Your task to perform on an android device: Go to network settings Image 0: 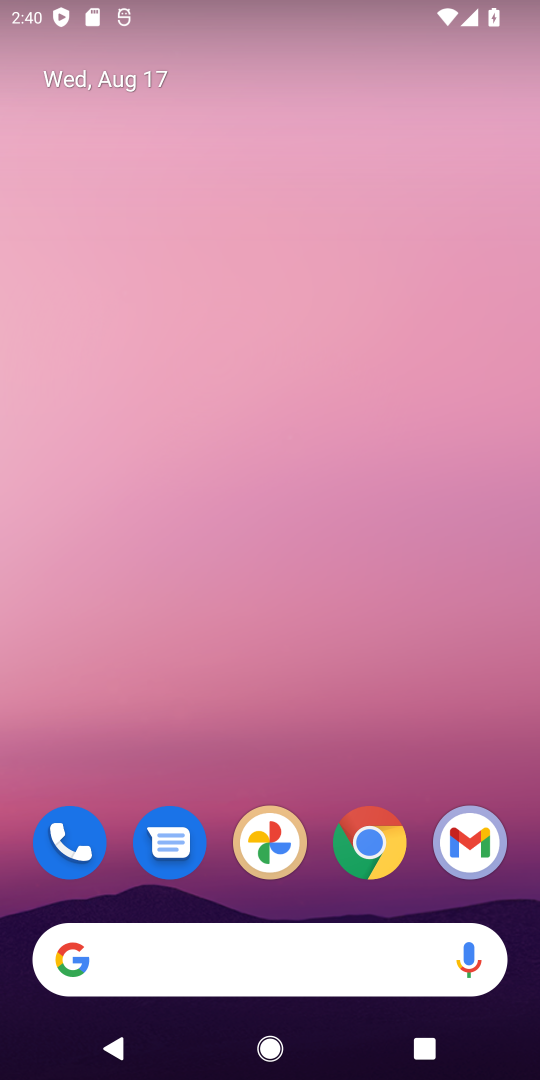
Step 0: drag from (422, 857) to (250, 43)
Your task to perform on an android device: Go to network settings Image 1: 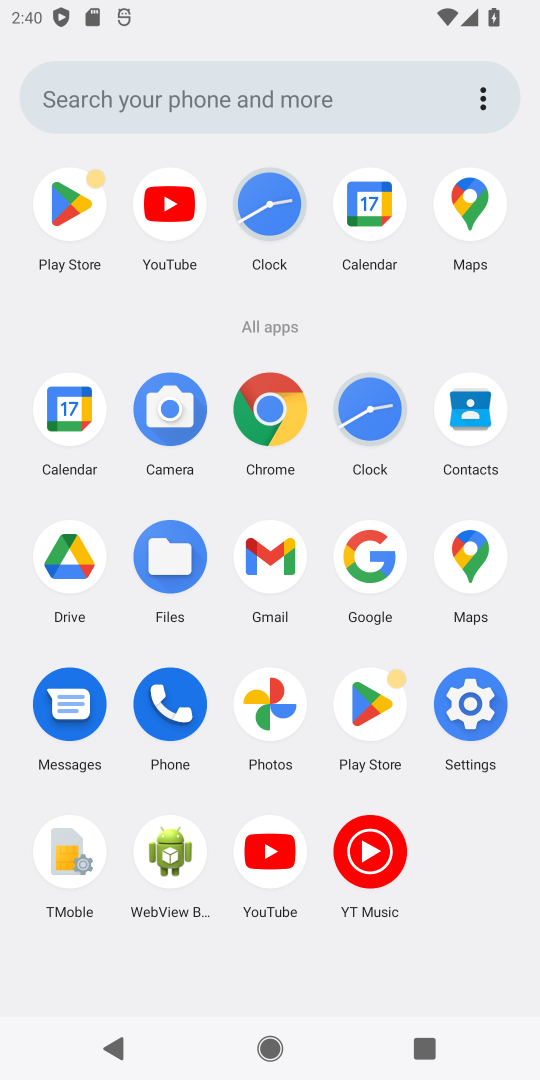
Step 1: click (455, 706)
Your task to perform on an android device: Go to network settings Image 2: 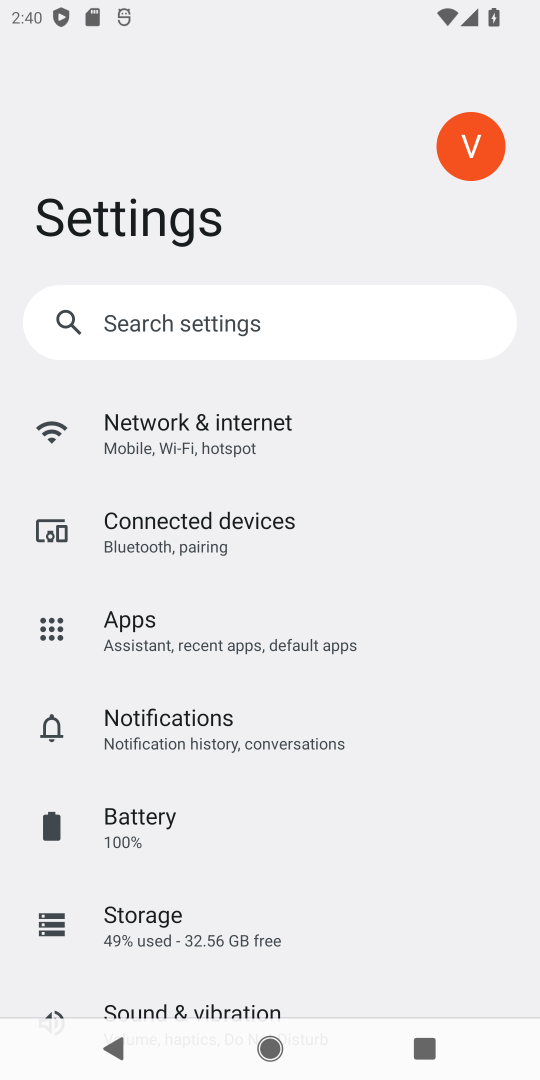
Step 2: click (210, 442)
Your task to perform on an android device: Go to network settings Image 3: 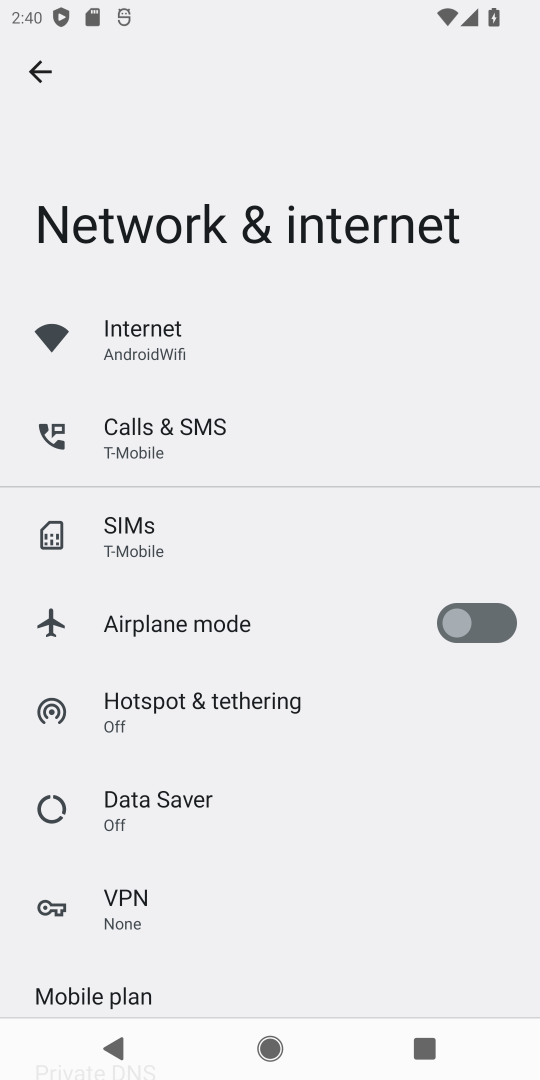
Step 3: task complete